Your task to perform on an android device: Clear all items from cart on bestbuy.com. Search for "beats solo 3" on bestbuy.com, select the first entry, and add it to the cart. Image 0: 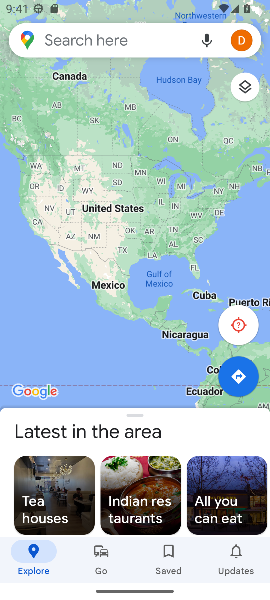
Step 0: press home button
Your task to perform on an android device: Clear all items from cart on bestbuy.com. Search for "beats solo 3" on bestbuy.com, select the first entry, and add it to the cart. Image 1: 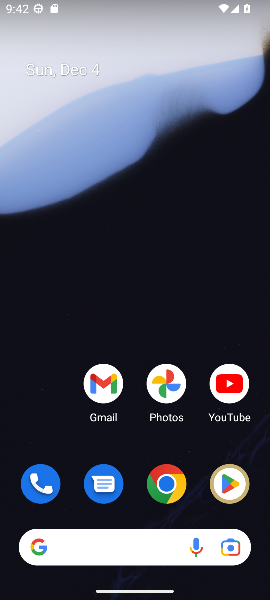
Step 1: click (168, 485)
Your task to perform on an android device: Clear all items from cart on bestbuy.com. Search for "beats solo 3" on bestbuy.com, select the first entry, and add it to the cart. Image 2: 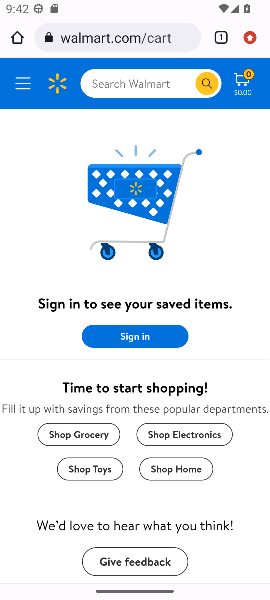
Step 2: click (111, 43)
Your task to perform on an android device: Clear all items from cart on bestbuy.com. Search for "beats solo 3" on bestbuy.com, select the first entry, and add it to the cart. Image 3: 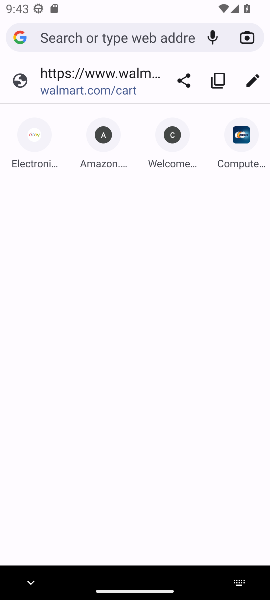
Step 3: type "bestbuy.com"
Your task to perform on an android device: Clear all items from cart on bestbuy.com. Search for "beats solo 3" on bestbuy.com, select the first entry, and add it to the cart. Image 4: 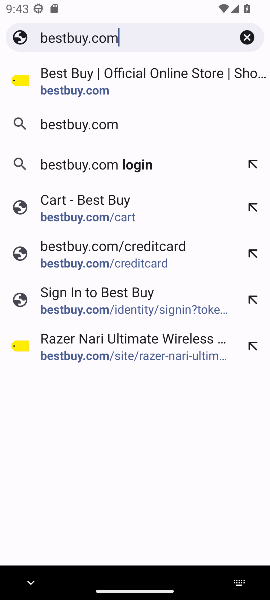
Step 4: click (59, 93)
Your task to perform on an android device: Clear all items from cart on bestbuy.com. Search for "beats solo 3" on bestbuy.com, select the first entry, and add it to the cart. Image 5: 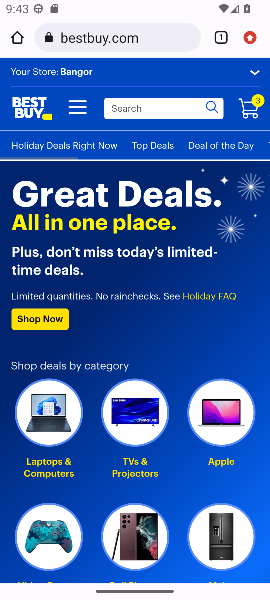
Step 5: click (250, 116)
Your task to perform on an android device: Clear all items from cart on bestbuy.com. Search for "beats solo 3" on bestbuy.com, select the first entry, and add it to the cart. Image 6: 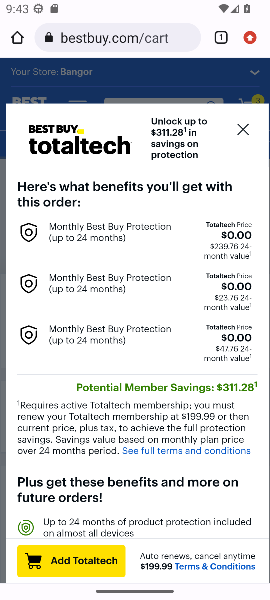
Step 6: drag from (102, 382) to (118, 209)
Your task to perform on an android device: Clear all items from cart on bestbuy.com. Search for "beats solo 3" on bestbuy.com, select the first entry, and add it to the cart. Image 7: 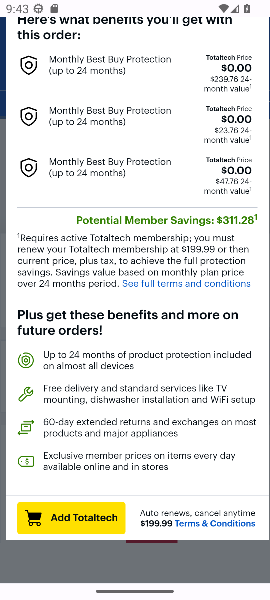
Step 7: drag from (118, 209) to (116, 330)
Your task to perform on an android device: Clear all items from cart on bestbuy.com. Search for "beats solo 3" on bestbuy.com, select the first entry, and add it to the cart. Image 8: 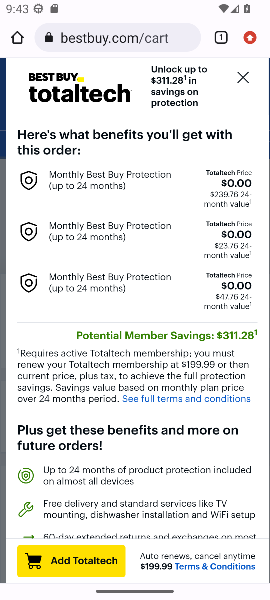
Step 8: click (238, 77)
Your task to perform on an android device: Clear all items from cart on bestbuy.com. Search for "beats solo 3" on bestbuy.com, select the first entry, and add it to the cart. Image 9: 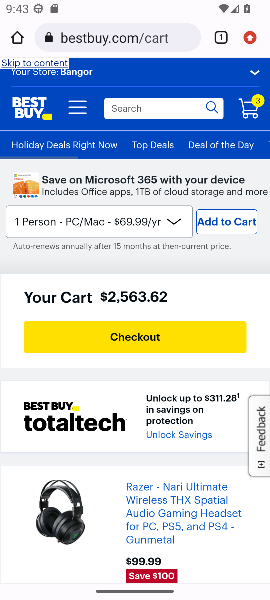
Step 9: drag from (107, 380) to (121, 250)
Your task to perform on an android device: Clear all items from cart on bestbuy.com. Search for "beats solo 3" on bestbuy.com, select the first entry, and add it to the cart. Image 10: 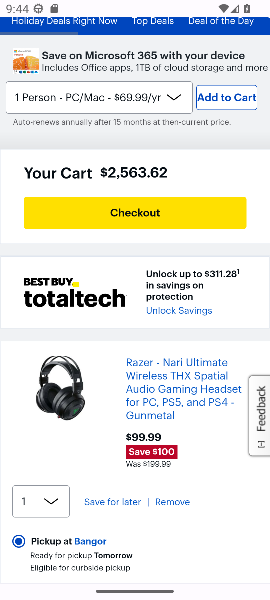
Step 10: click (176, 504)
Your task to perform on an android device: Clear all items from cart on bestbuy.com. Search for "beats solo 3" on bestbuy.com, select the first entry, and add it to the cart. Image 11: 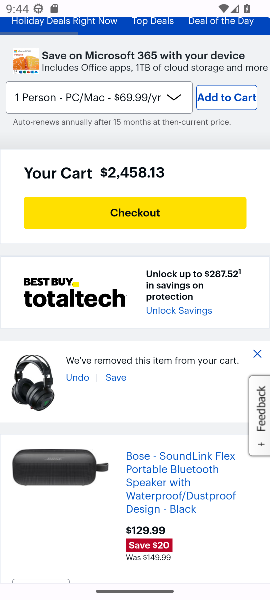
Step 11: drag from (146, 472) to (148, 324)
Your task to perform on an android device: Clear all items from cart on bestbuy.com. Search for "beats solo 3" on bestbuy.com, select the first entry, and add it to the cart. Image 12: 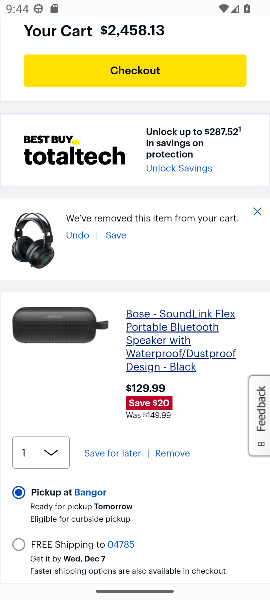
Step 12: click (161, 455)
Your task to perform on an android device: Clear all items from cart on bestbuy.com. Search for "beats solo 3" on bestbuy.com, select the first entry, and add it to the cart. Image 13: 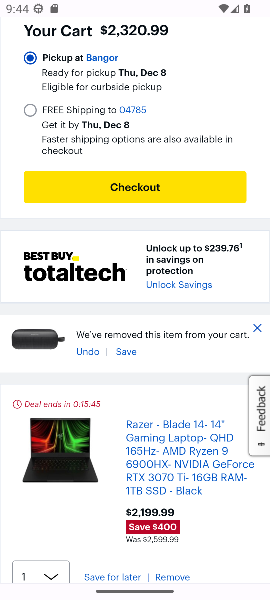
Step 13: click (175, 584)
Your task to perform on an android device: Clear all items from cart on bestbuy.com. Search for "beats solo 3" on bestbuy.com, select the first entry, and add it to the cart. Image 14: 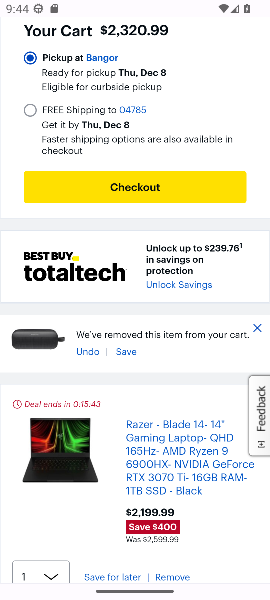
Step 14: click (176, 578)
Your task to perform on an android device: Clear all items from cart on bestbuy.com. Search for "beats solo 3" on bestbuy.com, select the first entry, and add it to the cart. Image 15: 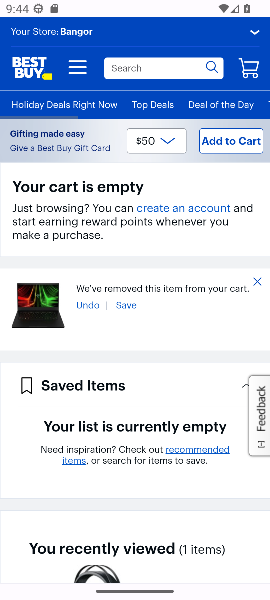
Step 15: click (136, 65)
Your task to perform on an android device: Clear all items from cart on bestbuy.com. Search for "beats solo 3" on bestbuy.com, select the first entry, and add it to the cart. Image 16: 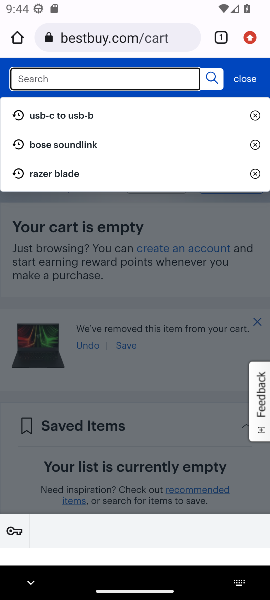
Step 16: type "beats solo 3"
Your task to perform on an android device: Clear all items from cart on bestbuy.com. Search for "beats solo 3" on bestbuy.com, select the first entry, and add it to the cart. Image 17: 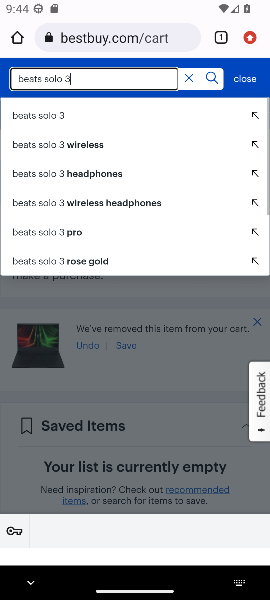
Step 17: click (34, 120)
Your task to perform on an android device: Clear all items from cart on bestbuy.com. Search for "beats solo 3" on bestbuy.com, select the first entry, and add it to the cart. Image 18: 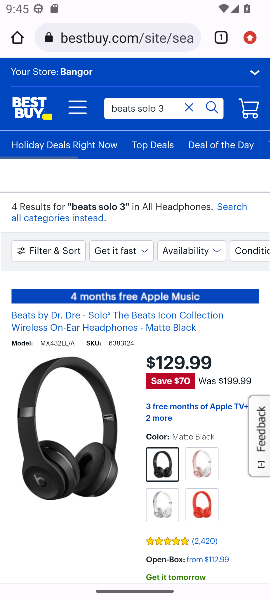
Step 18: drag from (138, 464) to (147, 326)
Your task to perform on an android device: Clear all items from cart on bestbuy.com. Search for "beats solo 3" on bestbuy.com, select the first entry, and add it to the cart. Image 19: 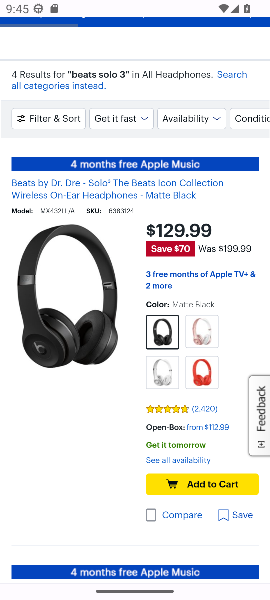
Step 19: click (184, 486)
Your task to perform on an android device: Clear all items from cart on bestbuy.com. Search for "beats solo 3" on bestbuy.com, select the first entry, and add it to the cart. Image 20: 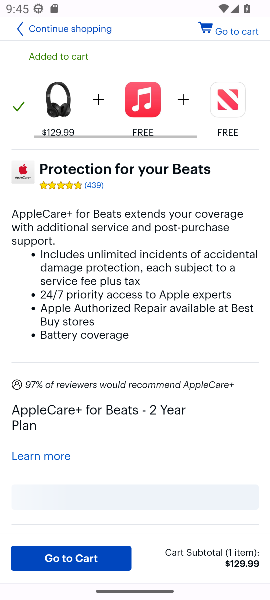
Step 20: task complete